Your task to perform on an android device: change the upload size in google photos Image 0: 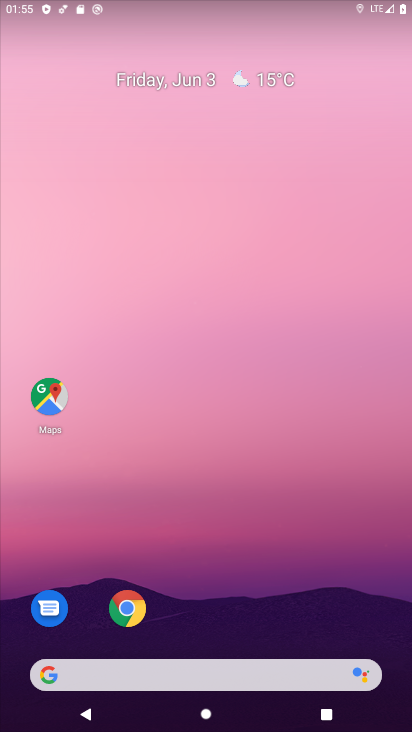
Step 0: drag from (271, 559) to (290, 123)
Your task to perform on an android device: change the upload size in google photos Image 1: 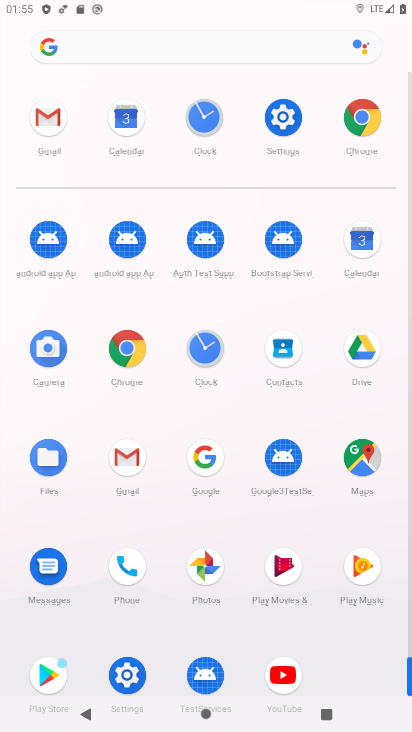
Step 1: click (217, 568)
Your task to perform on an android device: change the upload size in google photos Image 2: 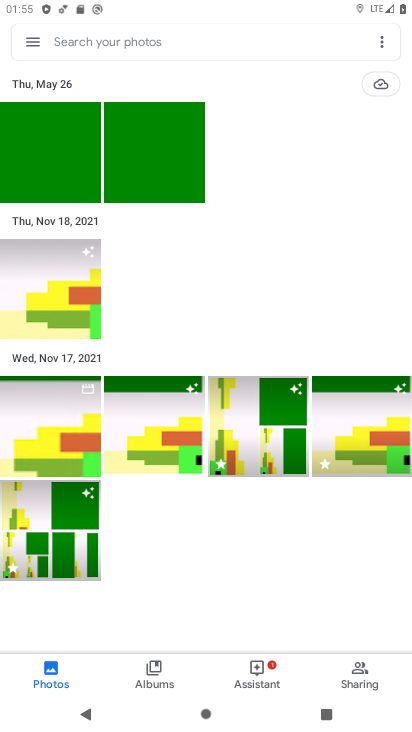
Step 2: click (39, 44)
Your task to perform on an android device: change the upload size in google photos Image 3: 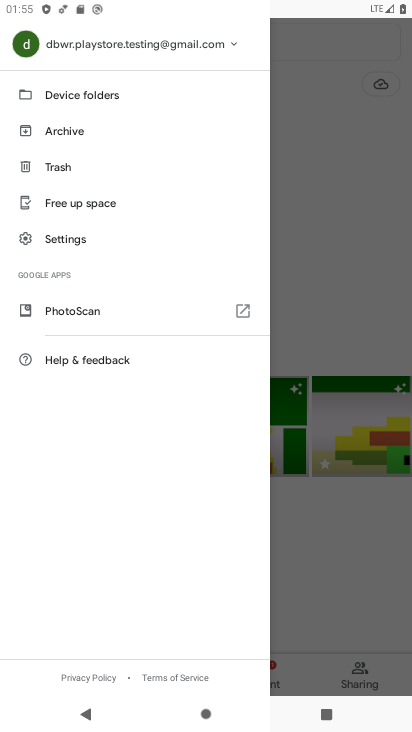
Step 3: click (59, 248)
Your task to perform on an android device: change the upload size in google photos Image 4: 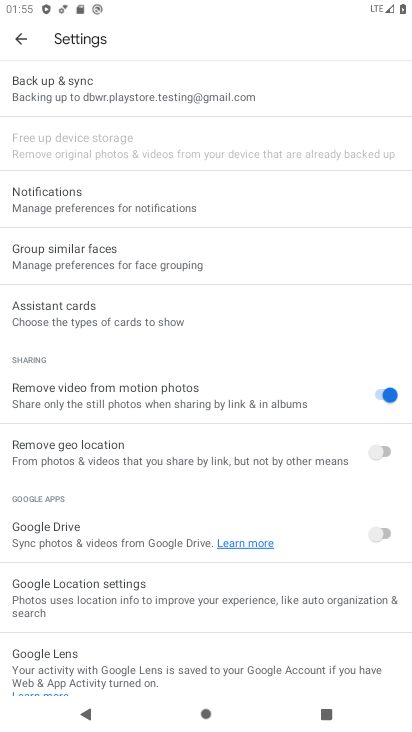
Step 4: click (88, 100)
Your task to perform on an android device: change the upload size in google photos Image 5: 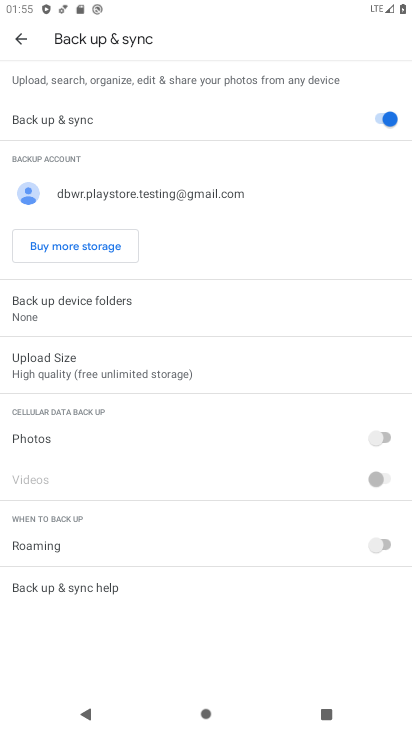
Step 5: click (141, 375)
Your task to perform on an android device: change the upload size in google photos Image 6: 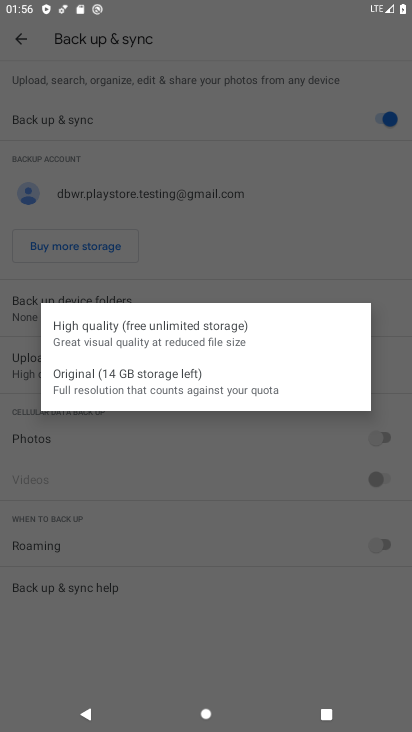
Step 6: click (143, 381)
Your task to perform on an android device: change the upload size in google photos Image 7: 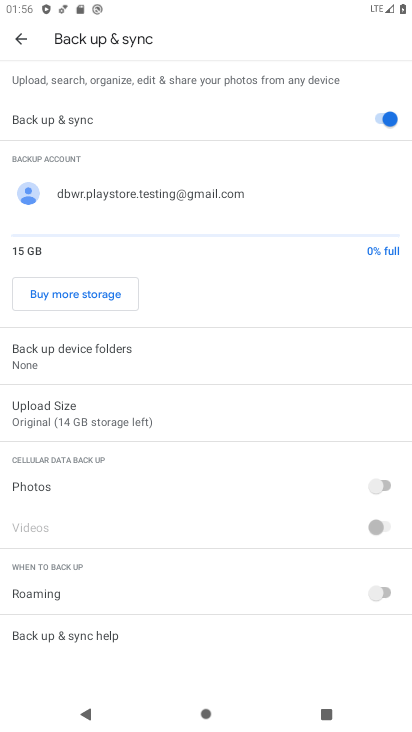
Step 7: task complete